Your task to perform on an android device: Open Yahoo.com Image 0: 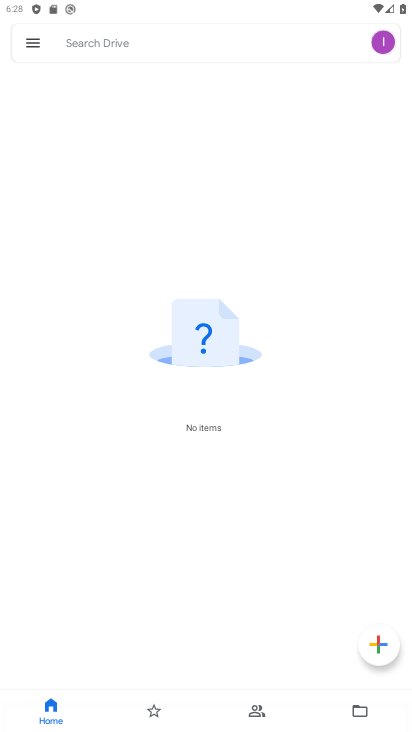
Step 0: press home button
Your task to perform on an android device: Open Yahoo.com Image 1: 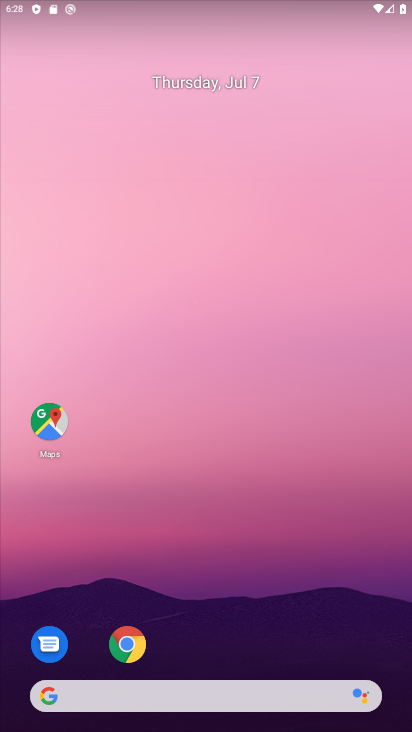
Step 1: drag from (225, 632) to (218, 102)
Your task to perform on an android device: Open Yahoo.com Image 2: 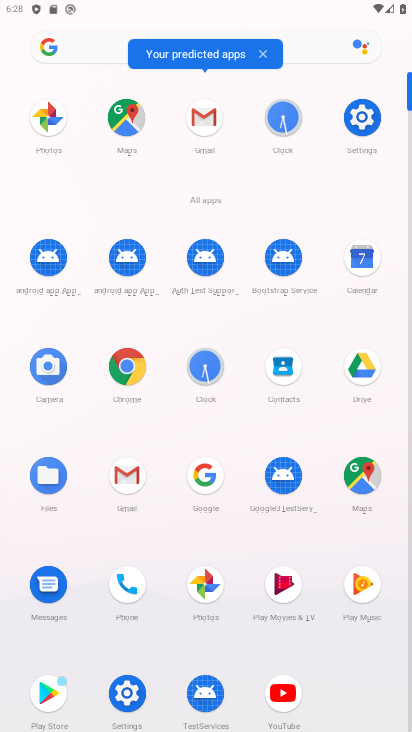
Step 2: click (128, 380)
Your task to perform on an android device: Open Yahoo.com Image 3: 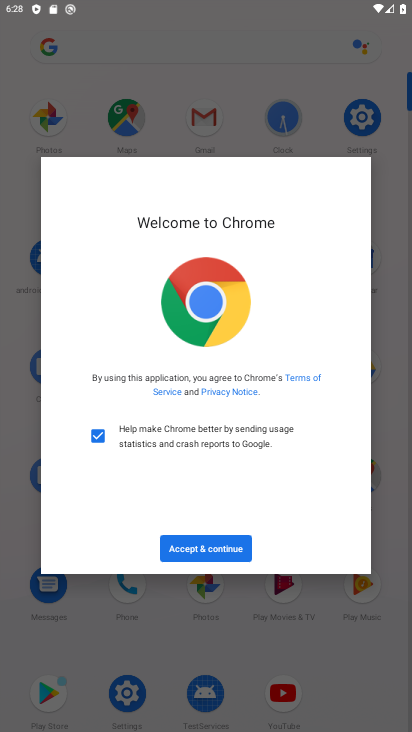
Step 3: click (180, 557)
Your task to perform on an android device: Open Yahoo.com Image 4: 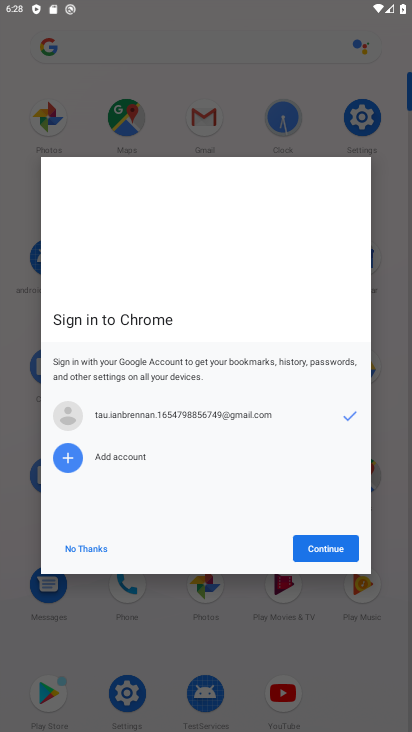
Step 4: click (335, 542)
Your task to perform on an android device: Open Yahoo.com Image 5: 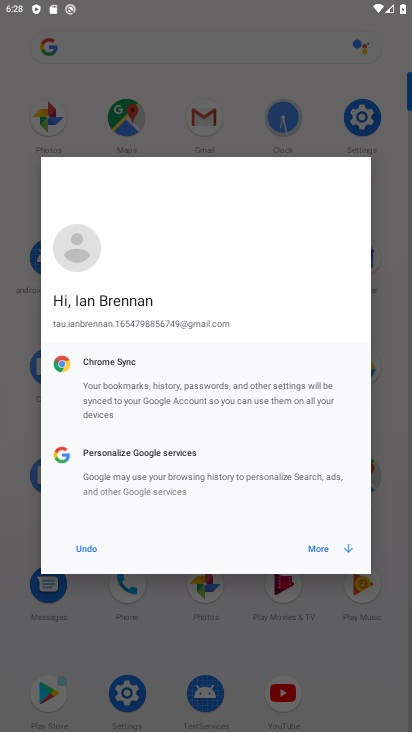
Step 5: click (320, 547)
Your task to perform on an android device: Open Yahoo.com Image 6: 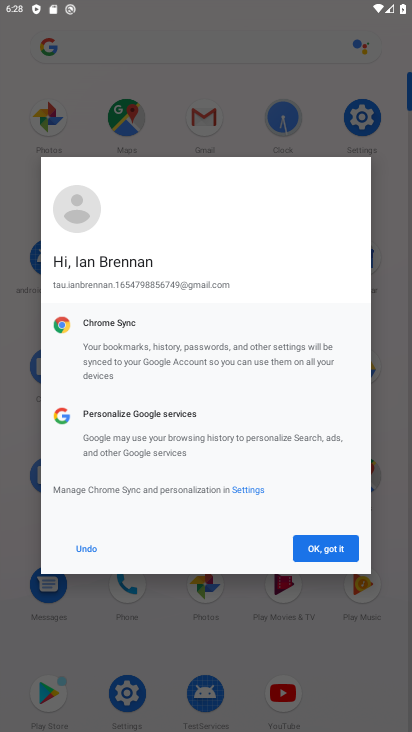
Step 6: click (320, 547)
Your task to perform on an android device: Open Yahoo.com Image 7: 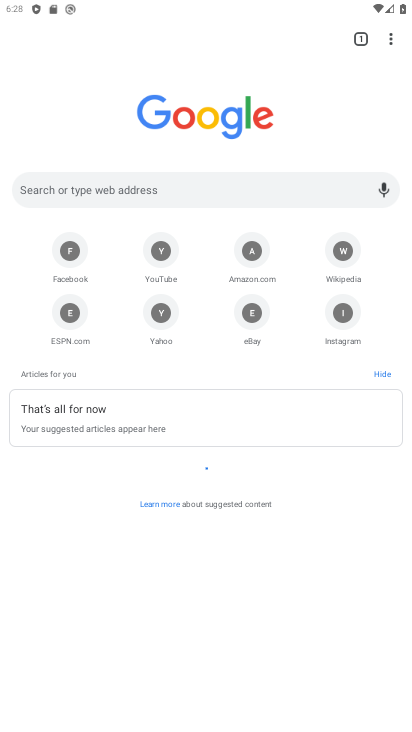
Step 7: click (158, 321)
Your task to perform on an android device: Open Yahoo.com Image 8: 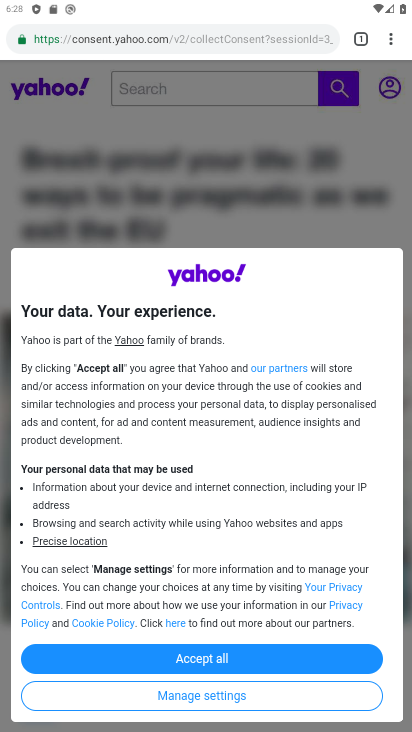
Step 8: click (187, 660)
Your task to perform on an android device: Open Yahoo.com Image 9: 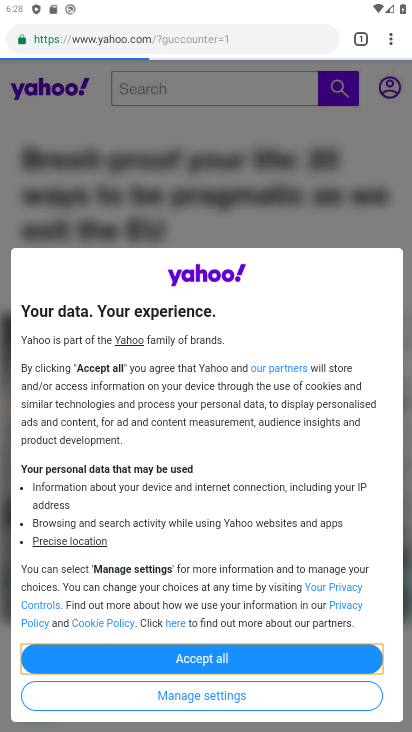
Step 9: task complete